Your task to perform on an android device: Go to Maps Image 0: 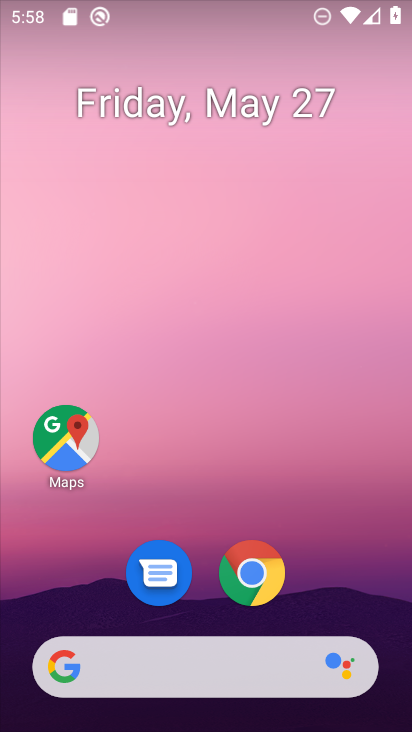
Step 0: click (69, 435)
Your task to perform on an android device: Go to Maps Image 1: 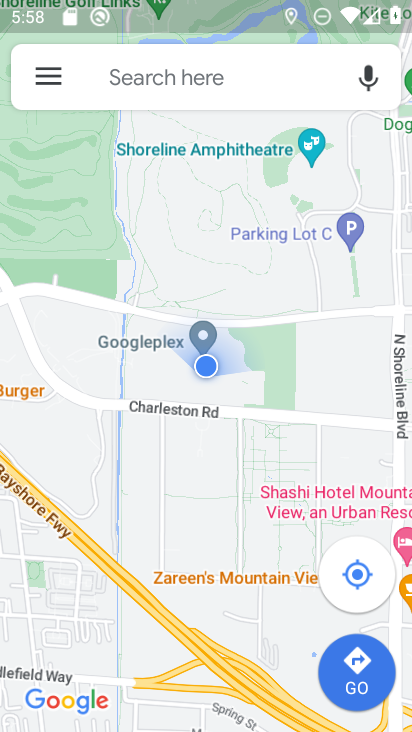
Step 1: task complete